Your task to perform on an android device: Open Google Image 0: 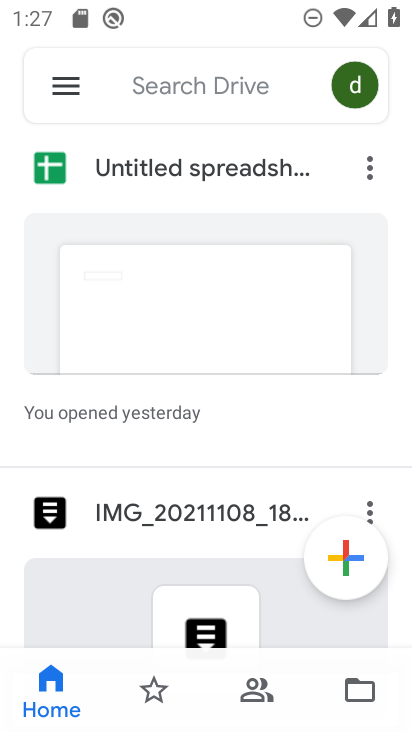
Step 0: press home button
Your task to perform on an android device: Open Google Image 1: 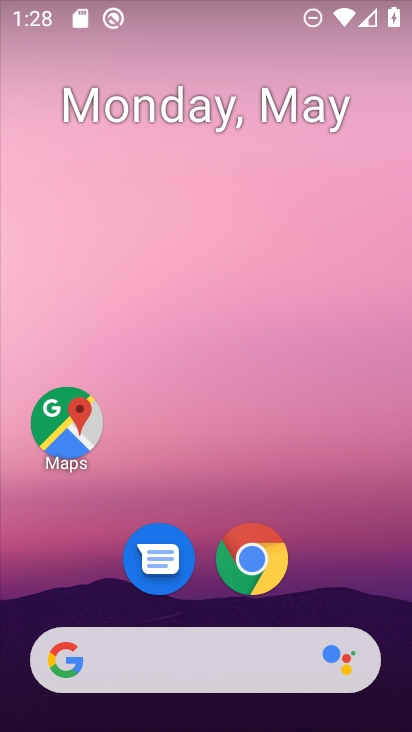
Step 1: drag from (202, 496) to (274, 0)
Your task to perform on an android device: Open Google Image 2: 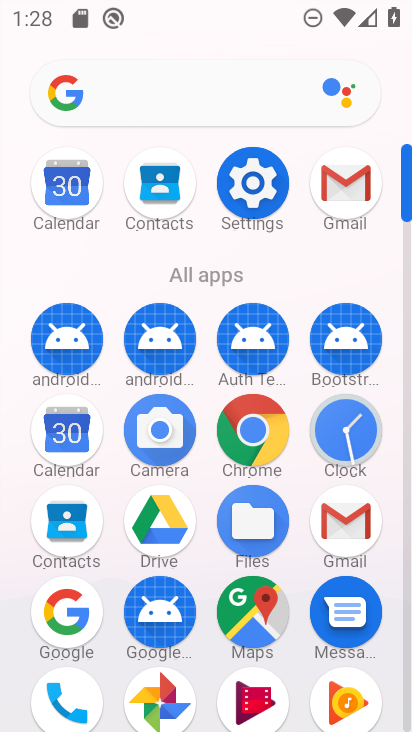
Step 2: click (56, 622)
Your task to perform on an android device: Open Google Image 3: 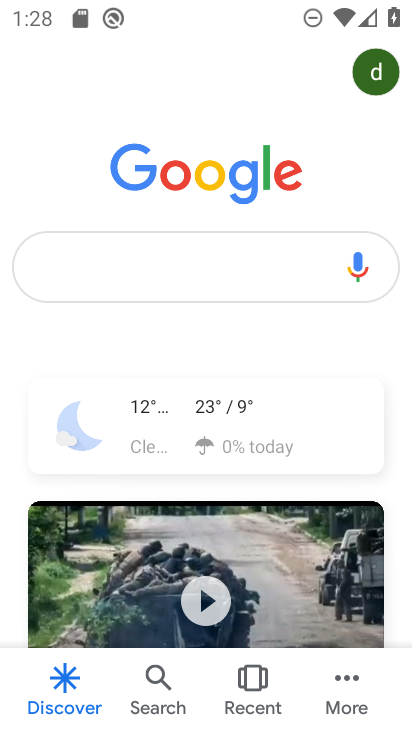
Step 3: task complete